Your task to perform on an android device: Is it going to rain tomorrow? Image 0: 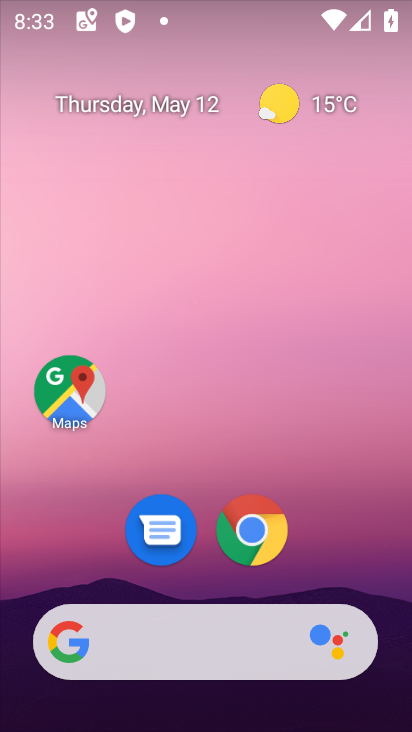
Step 0: click (167, 652)
Your task to perform on an android device: Is it going to rain tomorrow? Image 1: 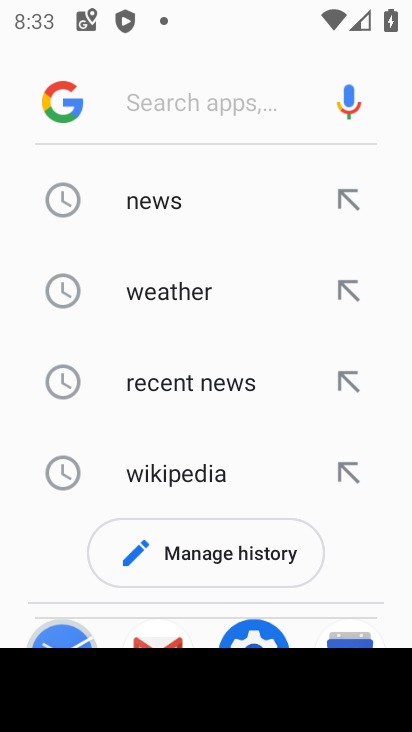
Step 1: type "Is it going to rain tomorrow?"
Your task to perform on an android device: Is it going to rain tomorrow? Image 2: 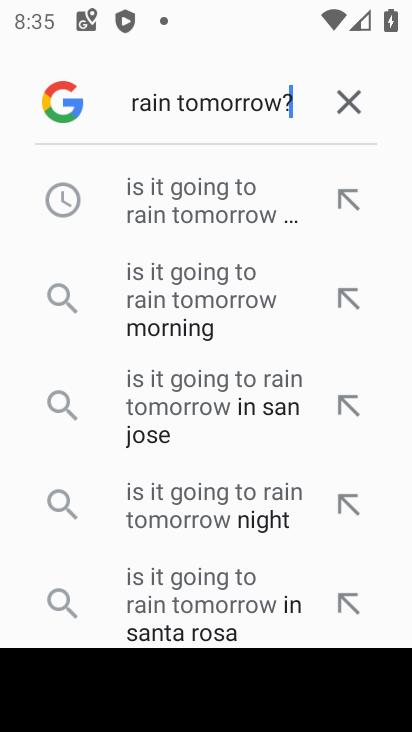
Step 2: click (158, 221)
Your task to perform on an android device: Is it going to rain tomorrow? Image 3: 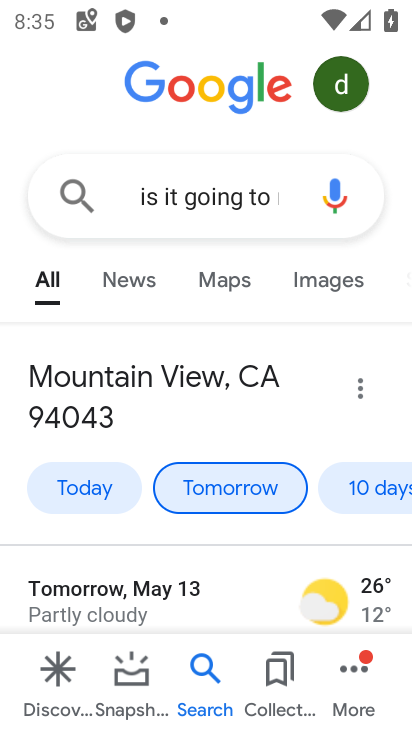
Step 3: task complete